Your task to perform on an android device: Toggle the flashlight Image 0: 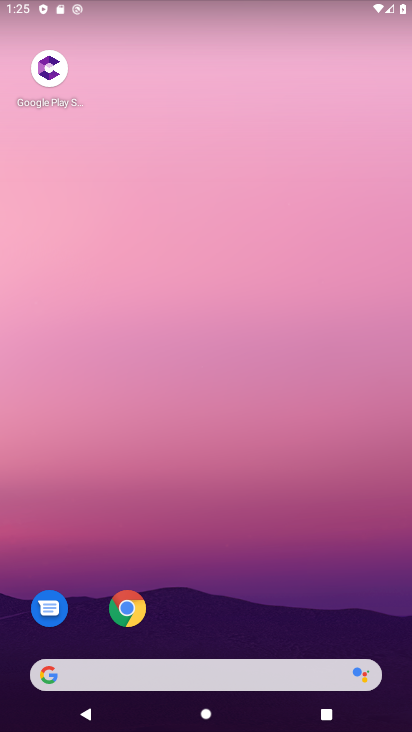
Step 0: drag from (313, 7) to (399, 542)
Your task to perform on an android device: Toggle the flashlight Image 1: 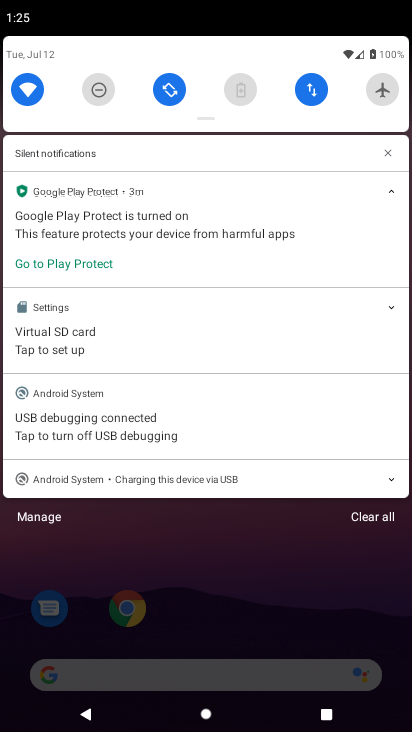
Step 1: task complete